Your task to perform on an android device: toggle show notifications on the lock screen Image 0: 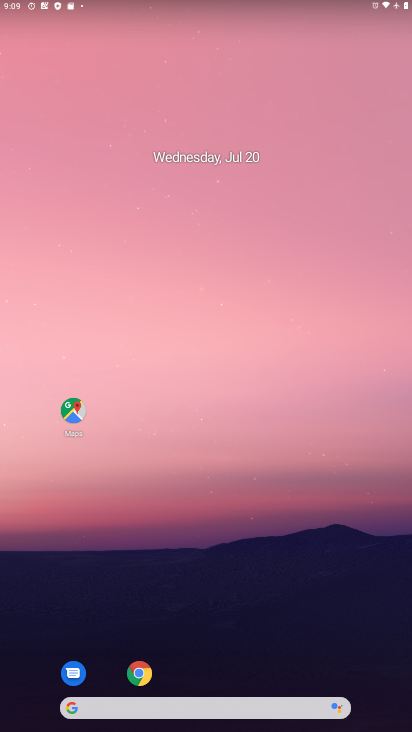
Step 0: drag from (205, 644) to (144, 122)
Your task to perform on an android device: toggle show notifications on the lock screen Image 1: 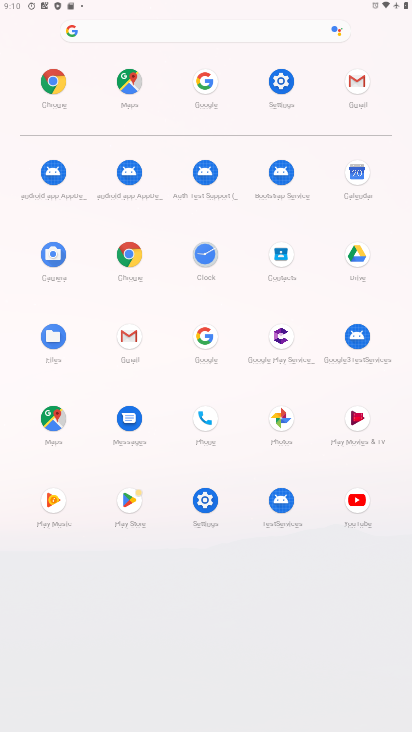
Step 1: click (280, 84)
Your task to perform on an android device: toggle show notifications on the lock screen Image 2: 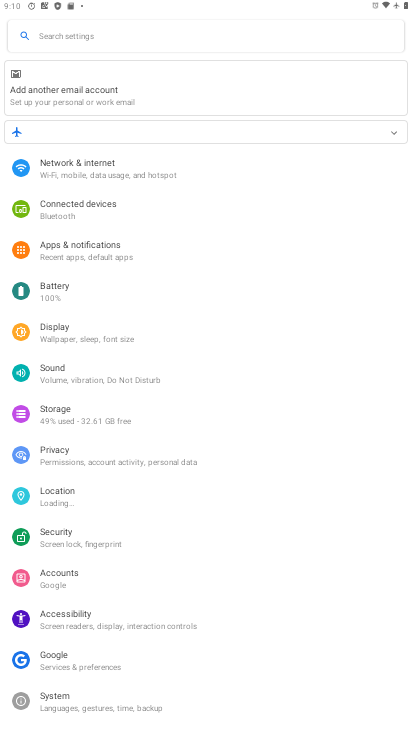
Step 2: click (100, 254)
Your task to perform on an android device: toggle show notifications on the lock screen Image 3: 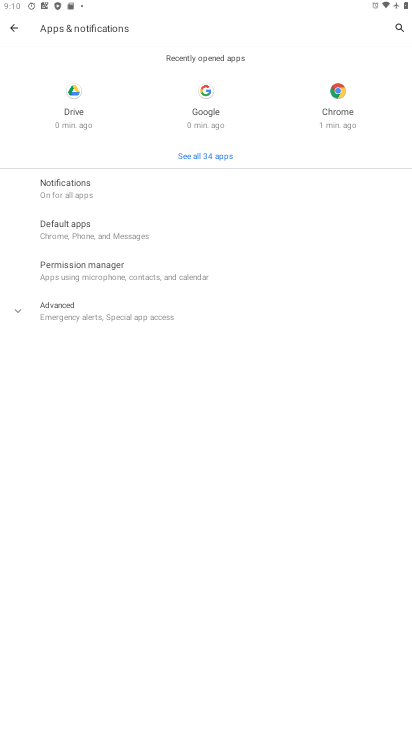
Step 3: click (80, 182)
Your task to perform on an android device: toggle show notifications on the lock screen Image 4: 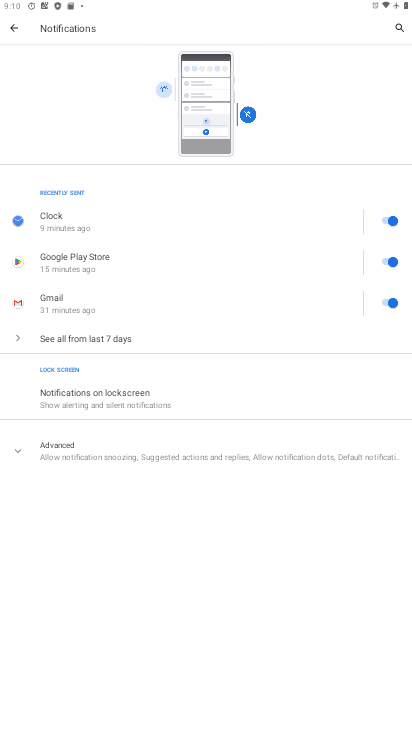
Step 4: click (95, 406)
Your task to perform on an android device: toggle show notifications on the lock screen Image 5: 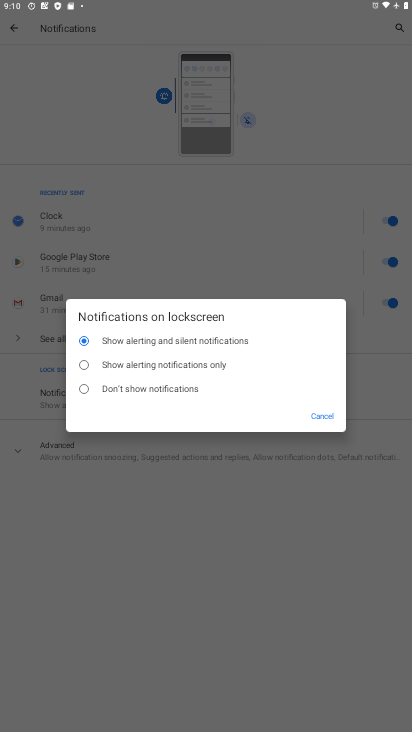
Step 5: click (83, 387)
Your task to perform on an android device: toggle show notifications on the lock screen Image 6: 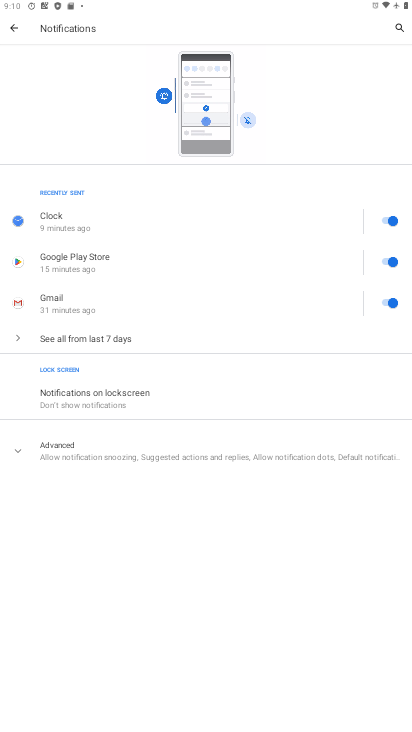
Step 6: task complete